Your task to perform on an android device: Turn off the flashlight Image 0: 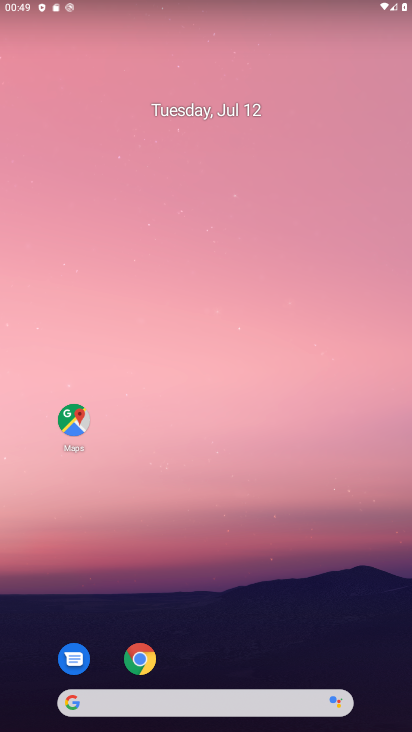
Step 0: drag from (170, 670) to (10, 697)
Your task to perform on an android device: Turn off the flashlight Image 1: 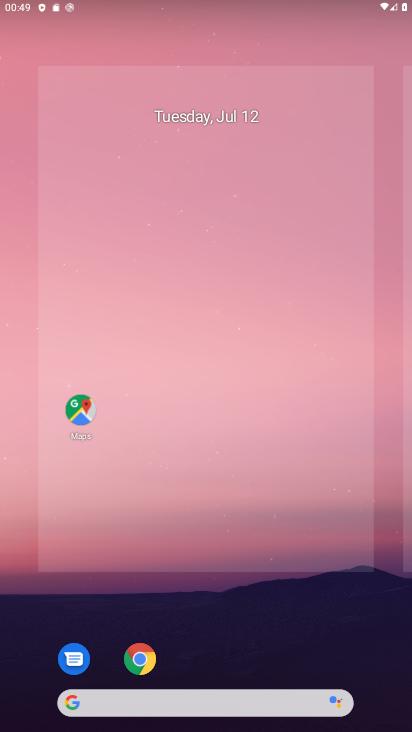
Step 1: drag from (203, 652) to (193, 188)
Your task to perform on an android device: Turn off the flashlight Image 2: 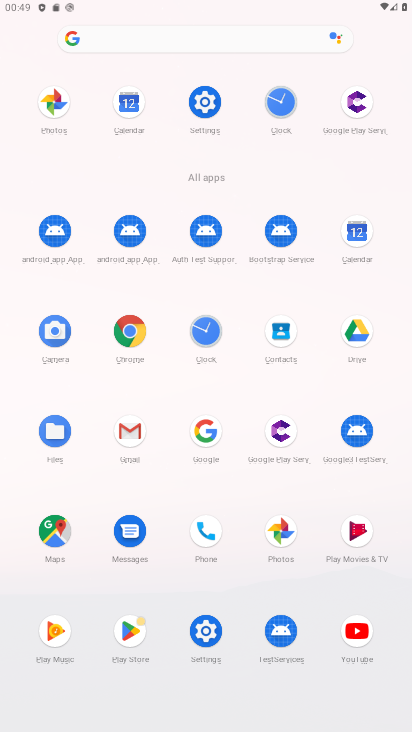
Step 2: click (211, 92)
Your task to perform on an android device: Turn off the flashlight Image 3: 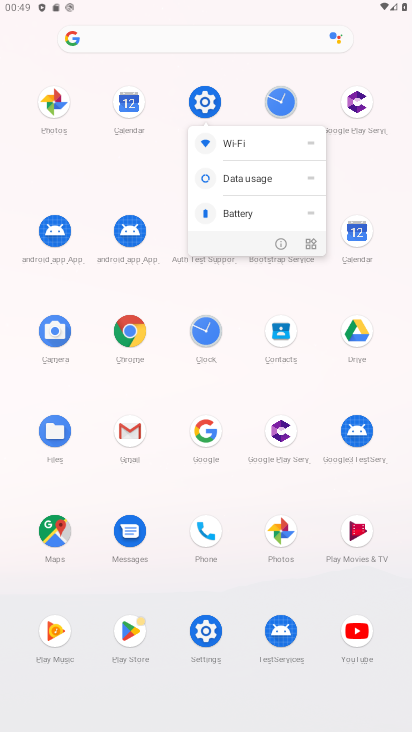
Step 3: click (273, 239)
Your task to perform on an android device: Turn off the flashlight Image 4: 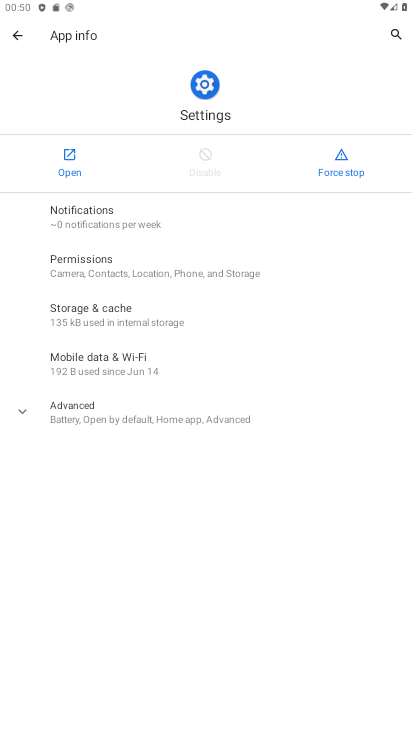
Step 4: click (62, 162)
Your task to perform on an android device: Turn off the flashlight Image 5: 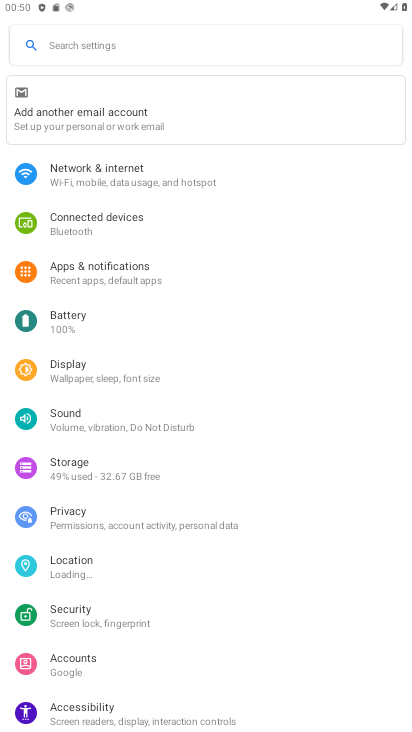
Step 5: click (174, 43)
Your task to perform on an android device: Turn off the flashlight Image 6: 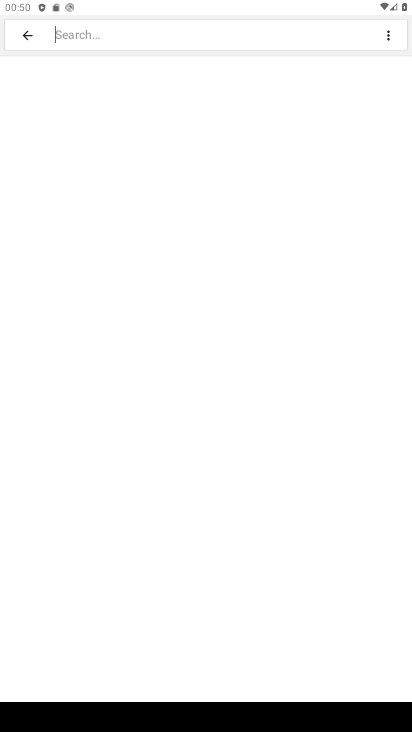
Step 6: type "flashlight"
Your task to perform on an android device: Turn off the flashlight Image 7: 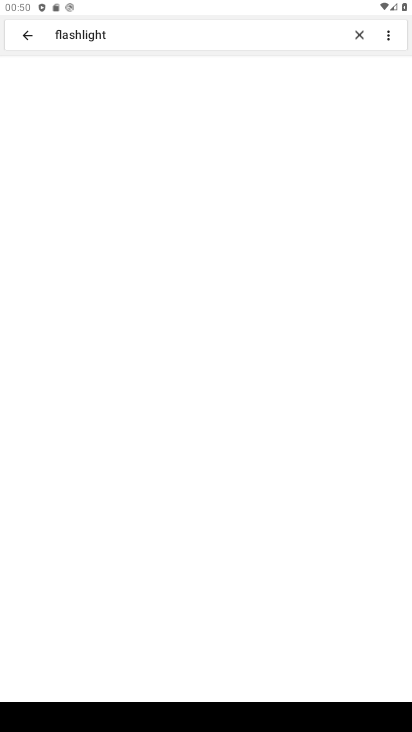
Step 7: click (85, 99)
Your task to perform on an android device: Turn off the flashlight Image 8: 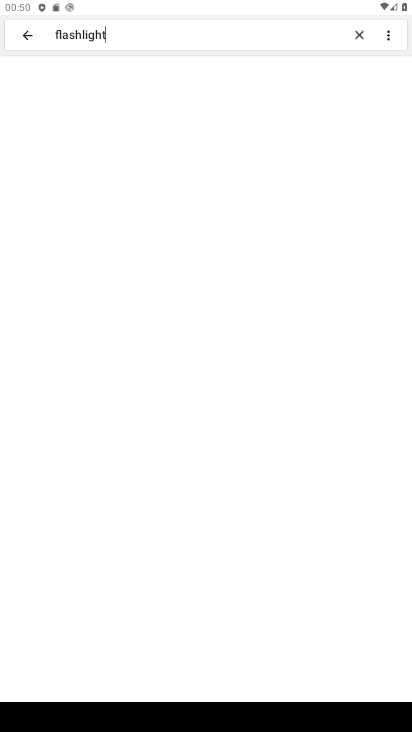
Step 8: click (183, 79)
Your task to perform on an android device: Turn off the flashlight Image 9: 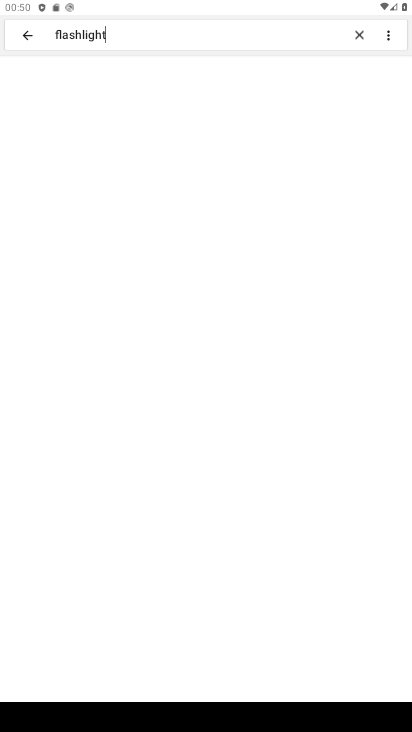
Step 9: click (183, 79)
Your task to perform on an android device: Turn off the flashlight Image 10: 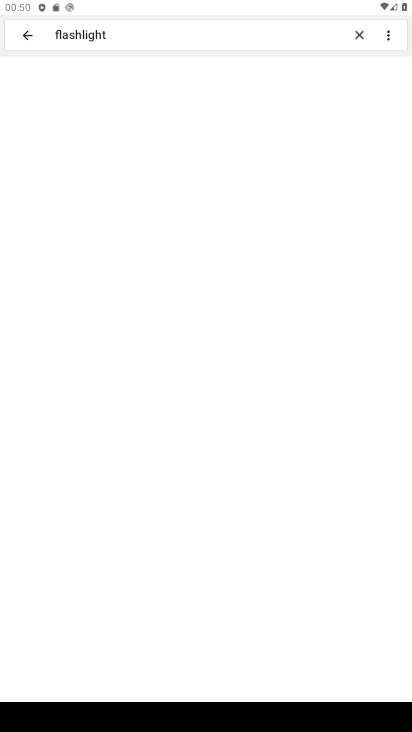
Step 10: click (184, 79)
Your task to perform on an android device: Turn off the flashlight Image 11: 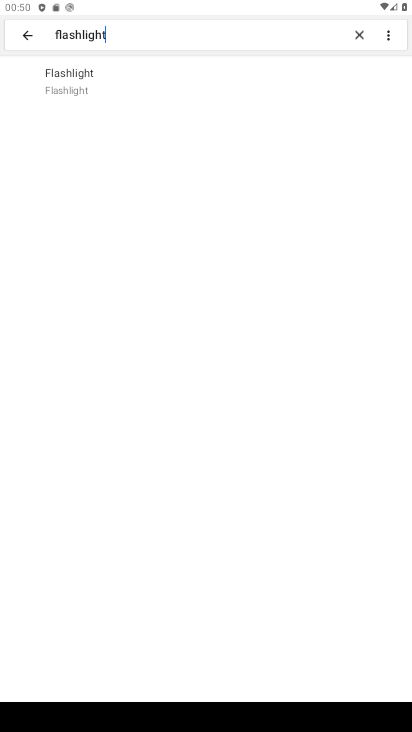
Step 11: task complete